Your task to perform on an android device: Open my contact list Image 0: 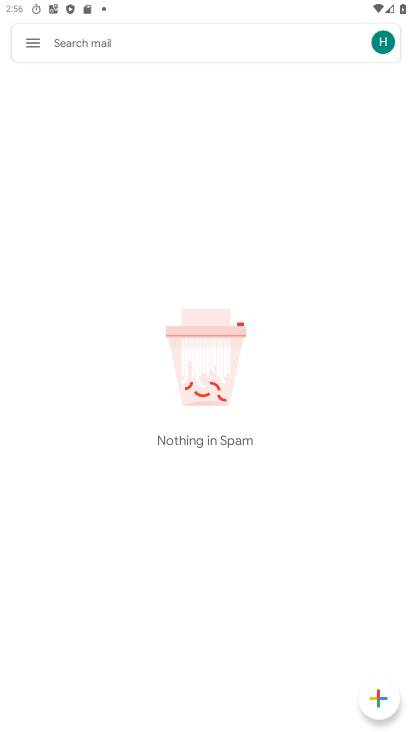
Step 0: press home button
Your task to perform on an android device: Open my contact list Image 1: 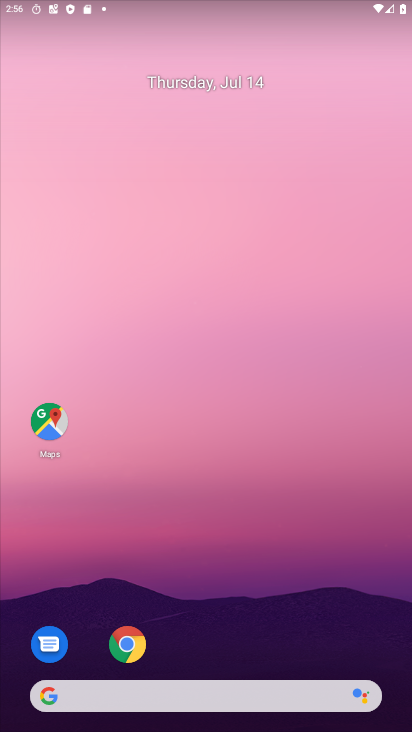
Step 1: drag from (14, 711) to (204, 307)
Your task to perform on an android device: Open my contact list Image 2: 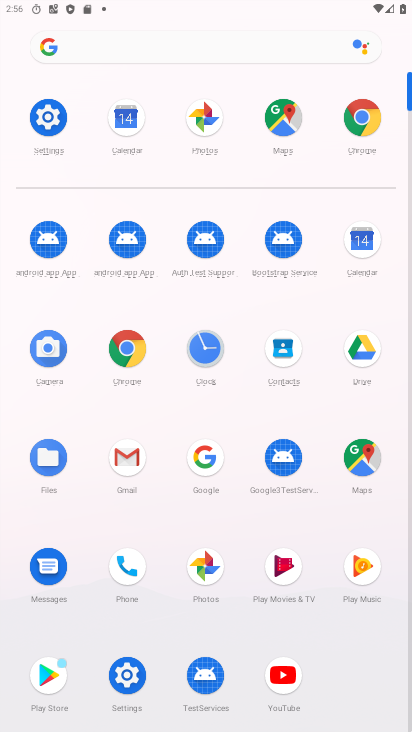
Step 2: click (285, 342)
Your task to perform on an android device: Open my contact list Image 3: 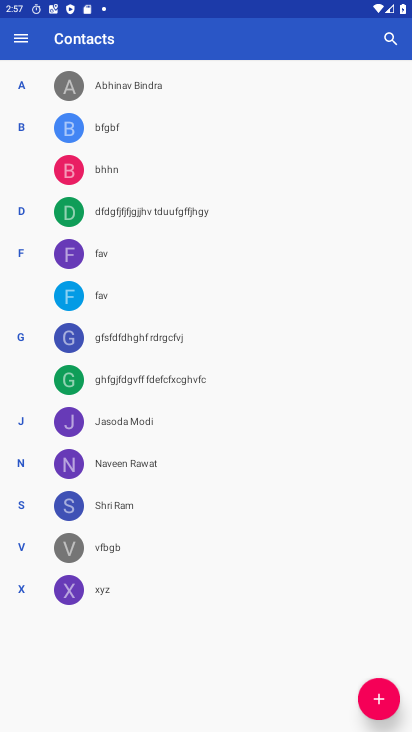
Step 3: task complete